Your task to perform on an android device: open a bookmark in the chrome app Image 0: 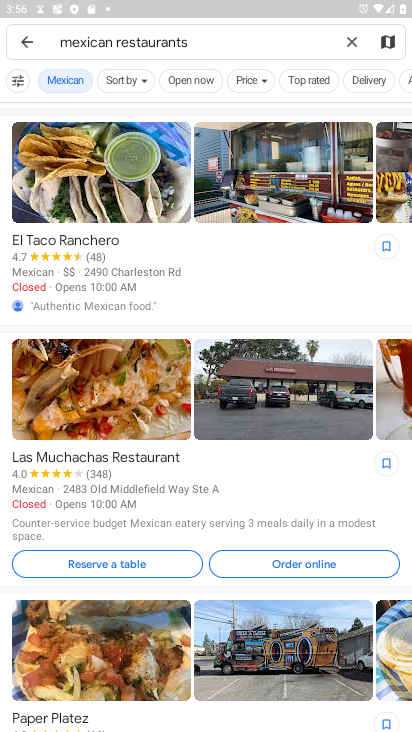
Step 0: press home button
Your task to perform on an android device: open a bookmark in the chrome app Image 1: 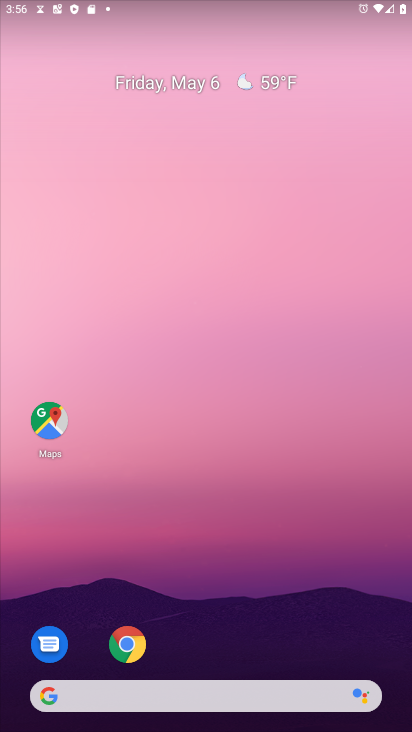
Step 1: click (128, 644)
Your task to perform on an android device: open a bookmark in the chrome app Image 2: 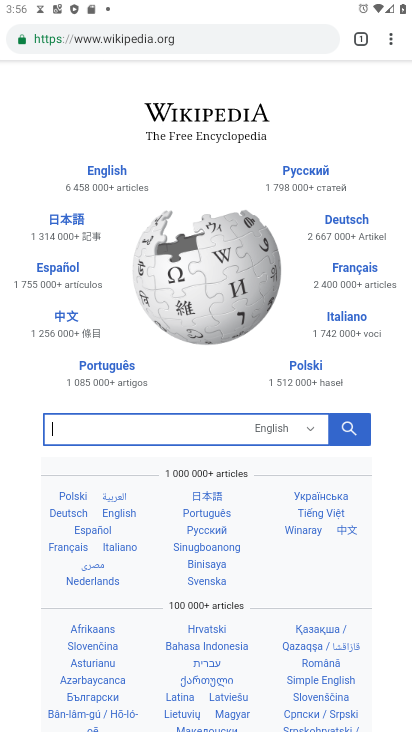
Step 2: click (392, 42)
Your task to perform on an android device: open a bookmark in the chrome app Image 3: 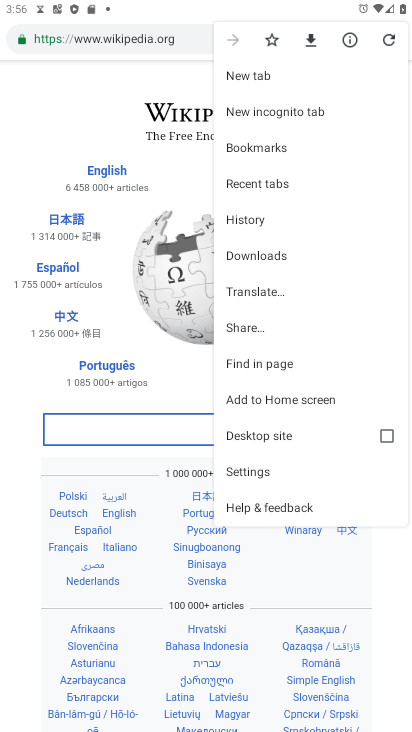
Step 3: click (272, 145)
Your task to perform on an android device: open a bookmark in the chrome app Image 4: 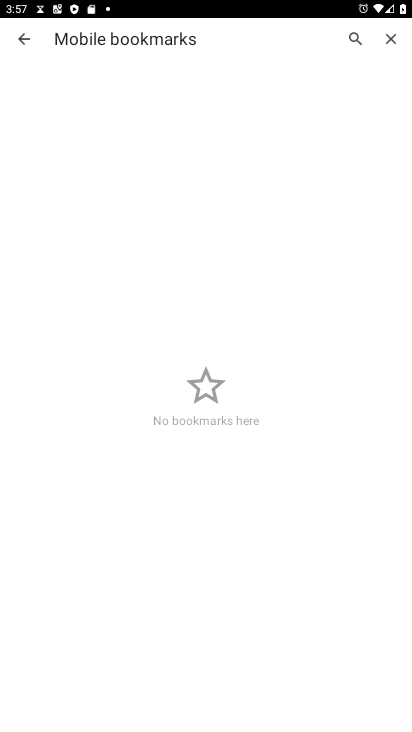
Step 4: task complete